Your task to perform on an android device: open app "Adobe Express: Graphic Design" (install if not already installed) and go to login screen Image 0: 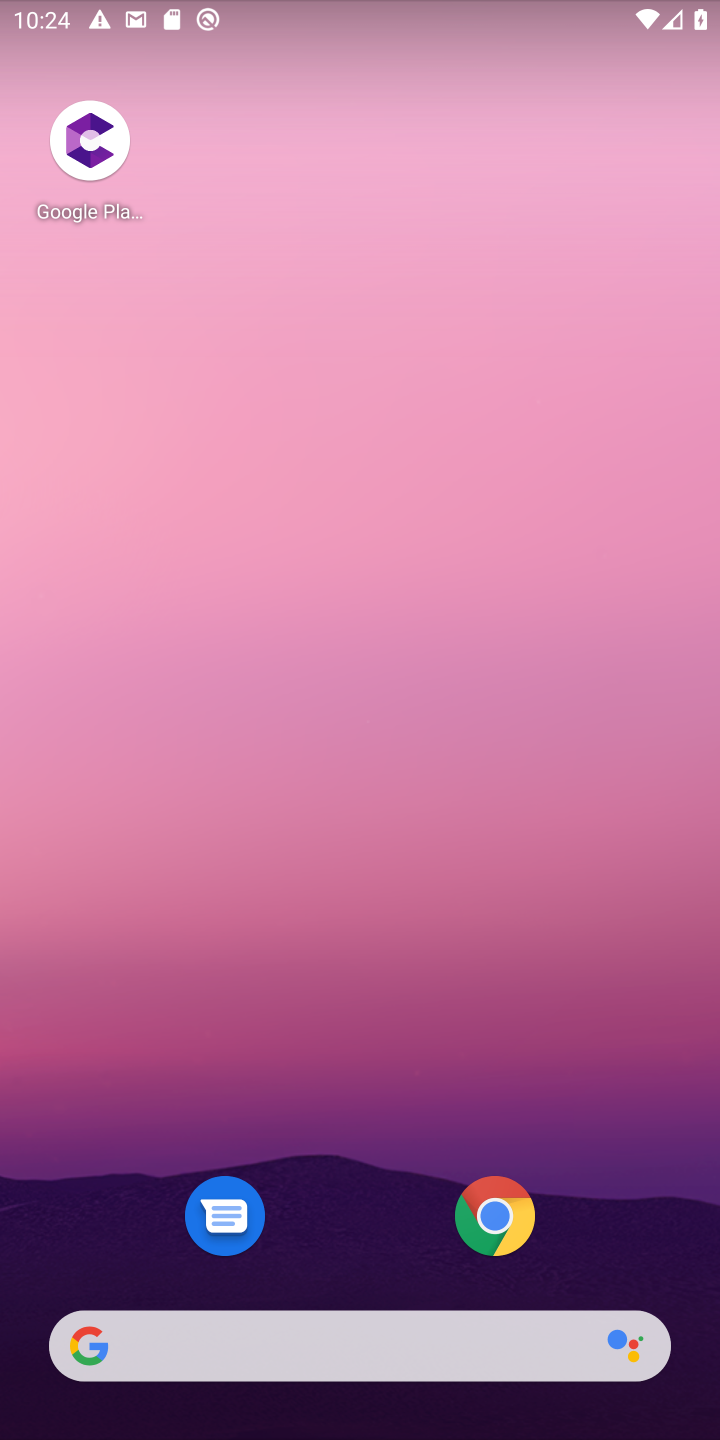
Step 0: drag from (277, 1333) to (387, 37)
Your task to perform on an android device: open app "Adobe Express: Graphic Design" (install if not already installed) and go to login screen Image 1: 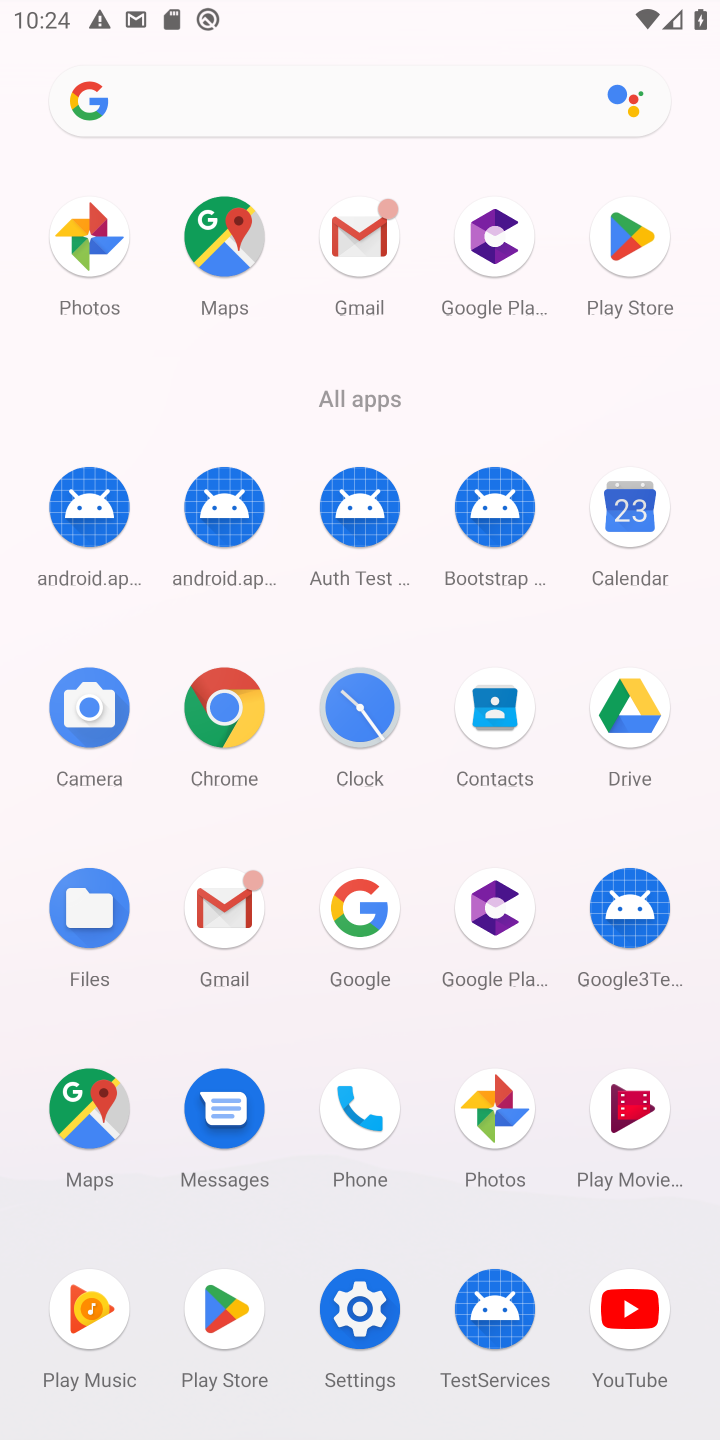
Step 1: click (633, 236)
Your task to perform on an android device: open app "Adobe Express: Graphic Design" (install if not already installed) and go to login screen Image 2: 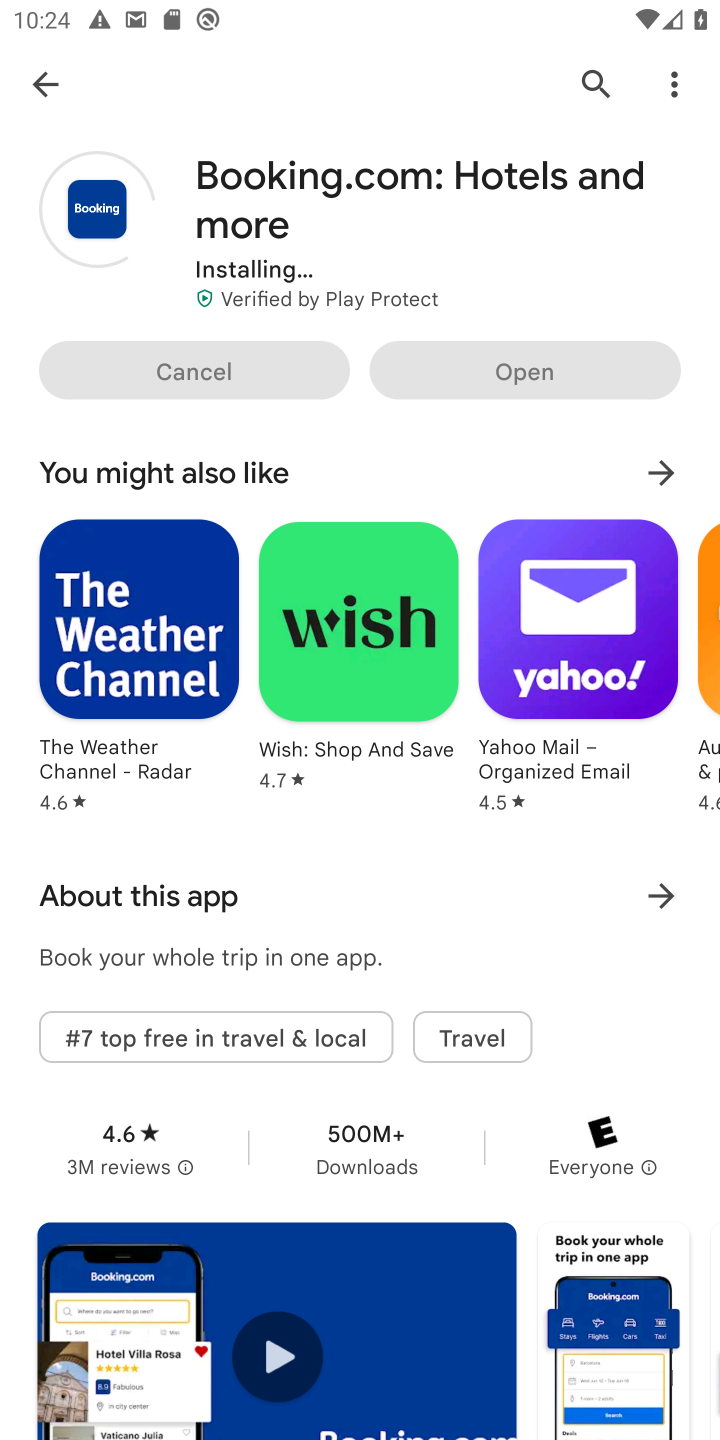
Step 2: press back button
Your task to perform on an android device: open app "Adobe Express: Graphic Design" (install if not already installed) and go to login screen Image 3: 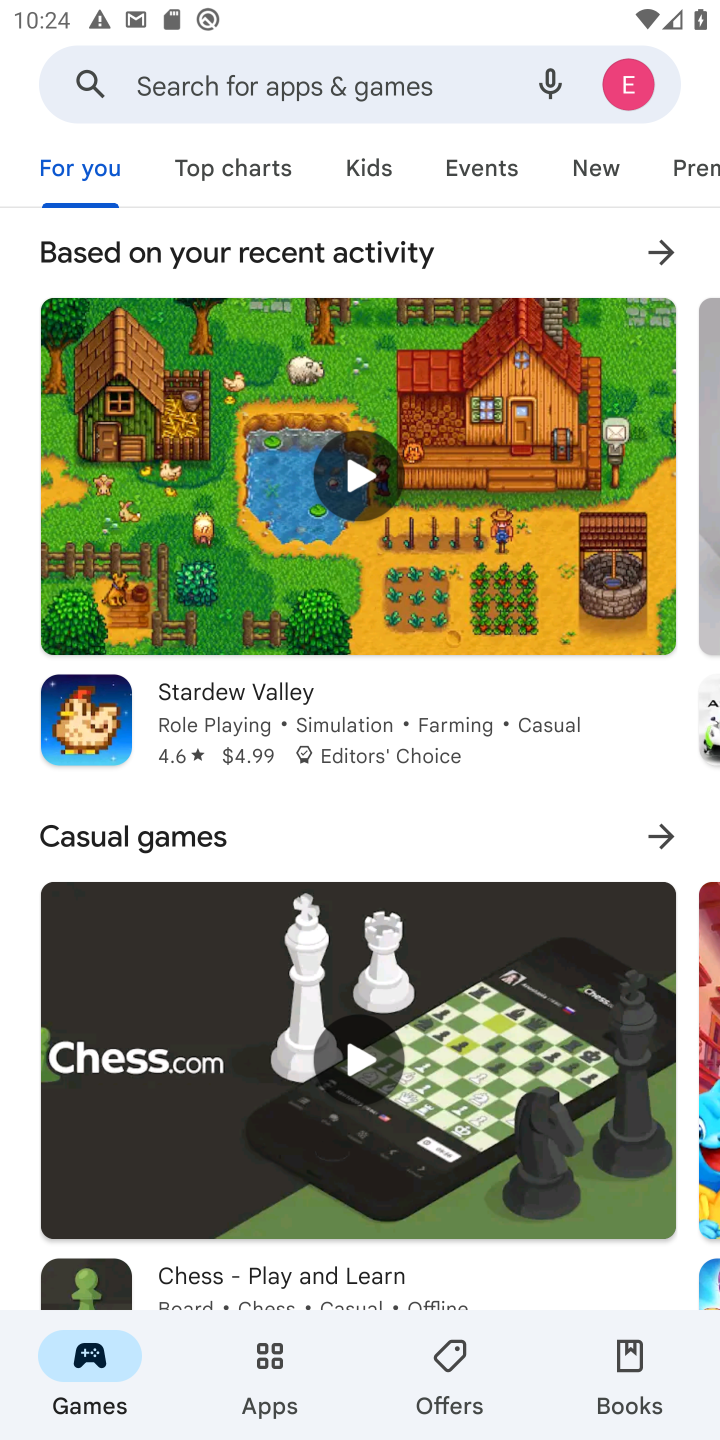
Step 3: click (393, 89)
Your task to perform on an android device: open app "Adobe Express: Graphic Design" (install if not already installed) and go to login screen Image 4: 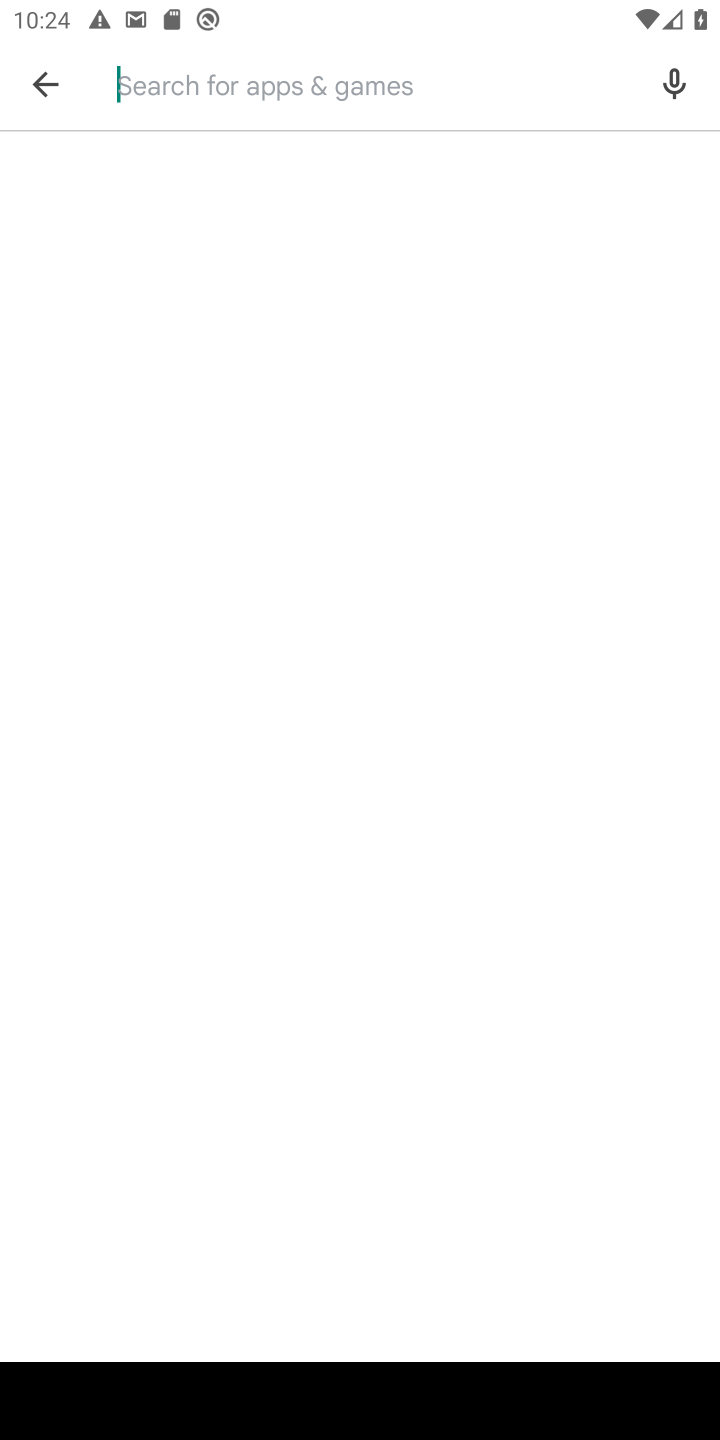
Step 4: type "Adobe Express: Graphic Design"
Your task to perform on an android device: open app "Adobe Express: Graphic Design" (install if not already installed) and go to login screen Image 5: 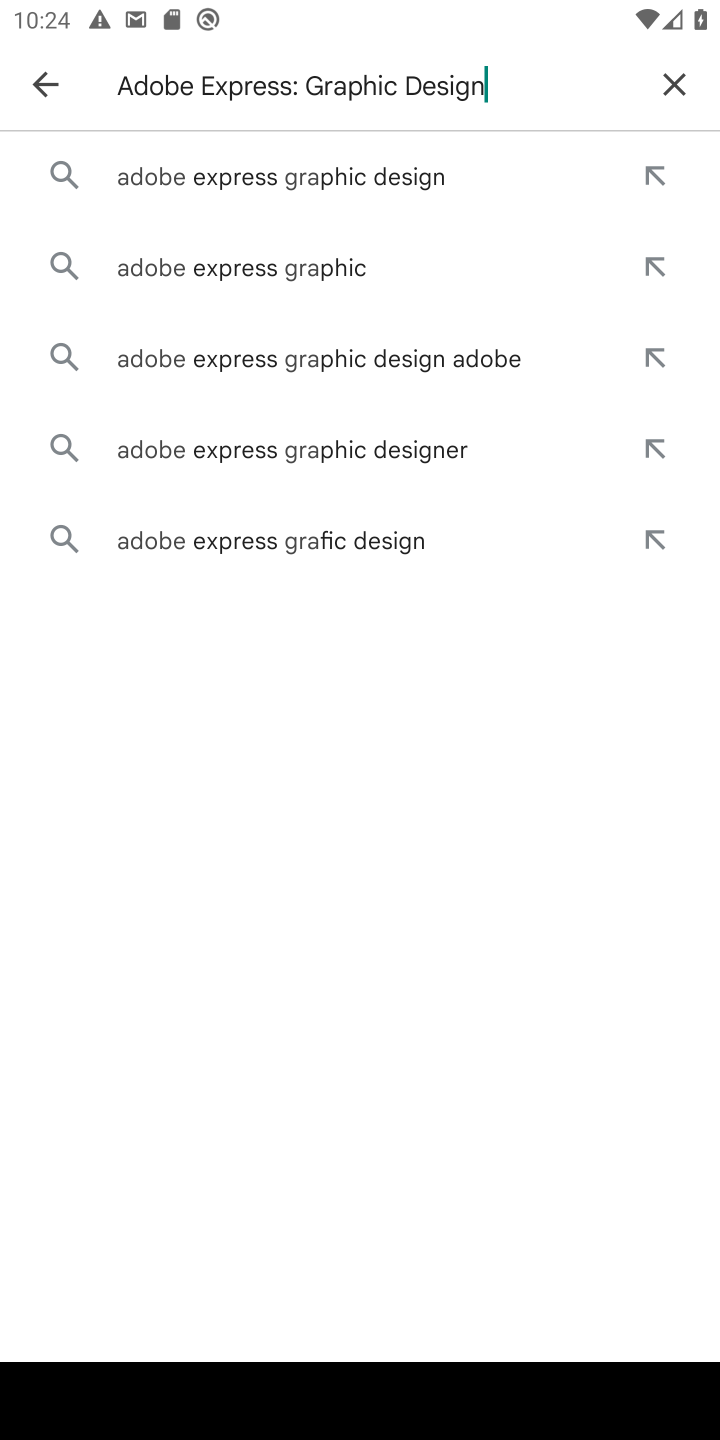
Step 5: type ""
Your task to perform on an android device: open app "Adobe Express: Graphic Design" (install if not already installed) and go to login screen Image 6: 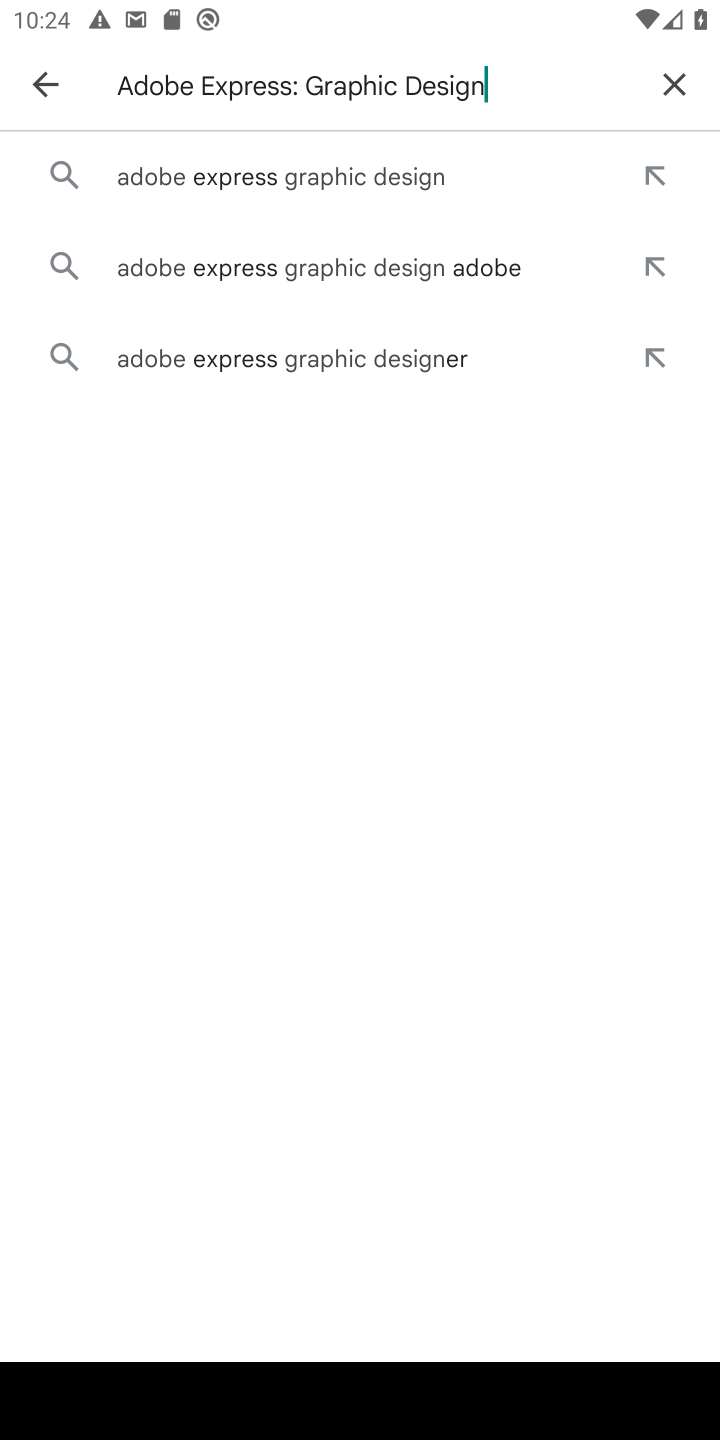
Step 6: click (219, 161)
Your task to perform on an android device: open app "Adobe Express: Graphic Design" (install if not already installed) and go to login screen Image 7: 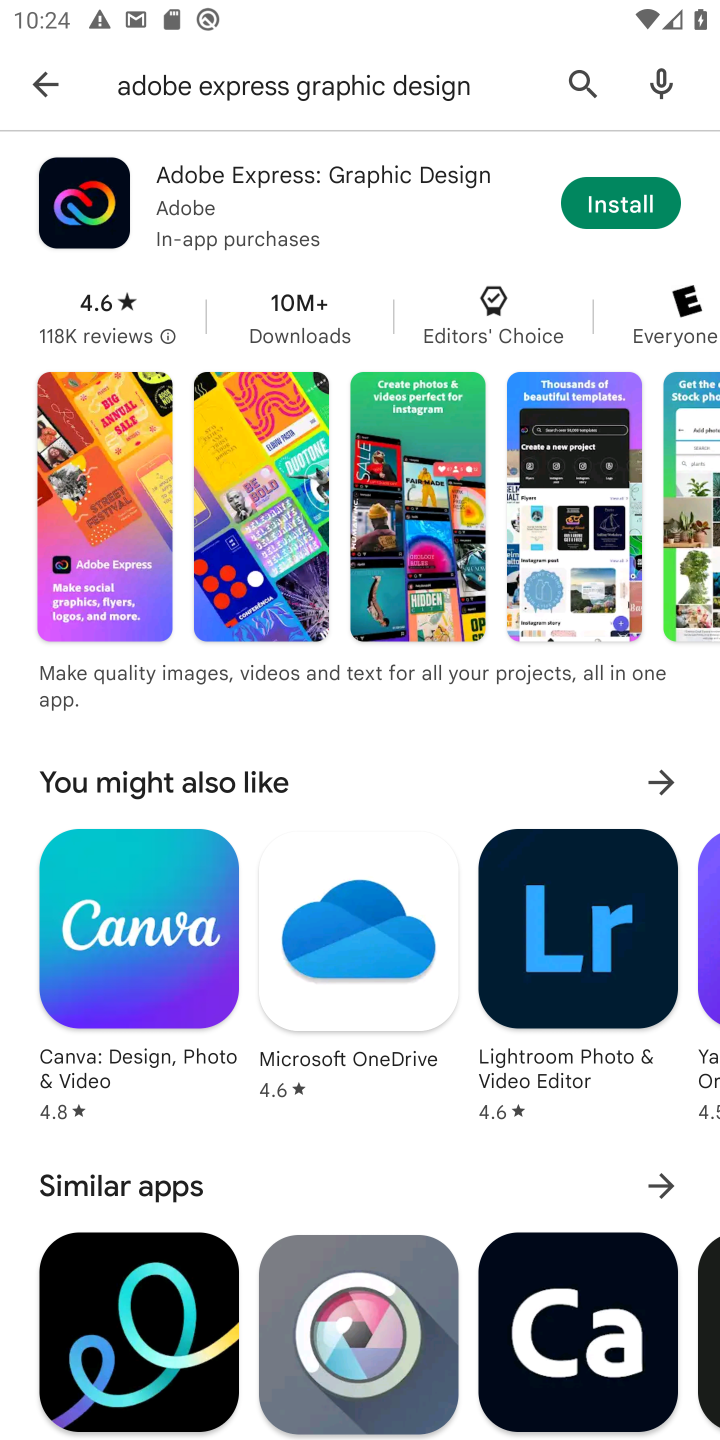
Step 7: click (599, 210)
Your task to perform on an android device: open app "Adobe Express: Graphic Design" (install if not already installed) and go to login screen Image 8: 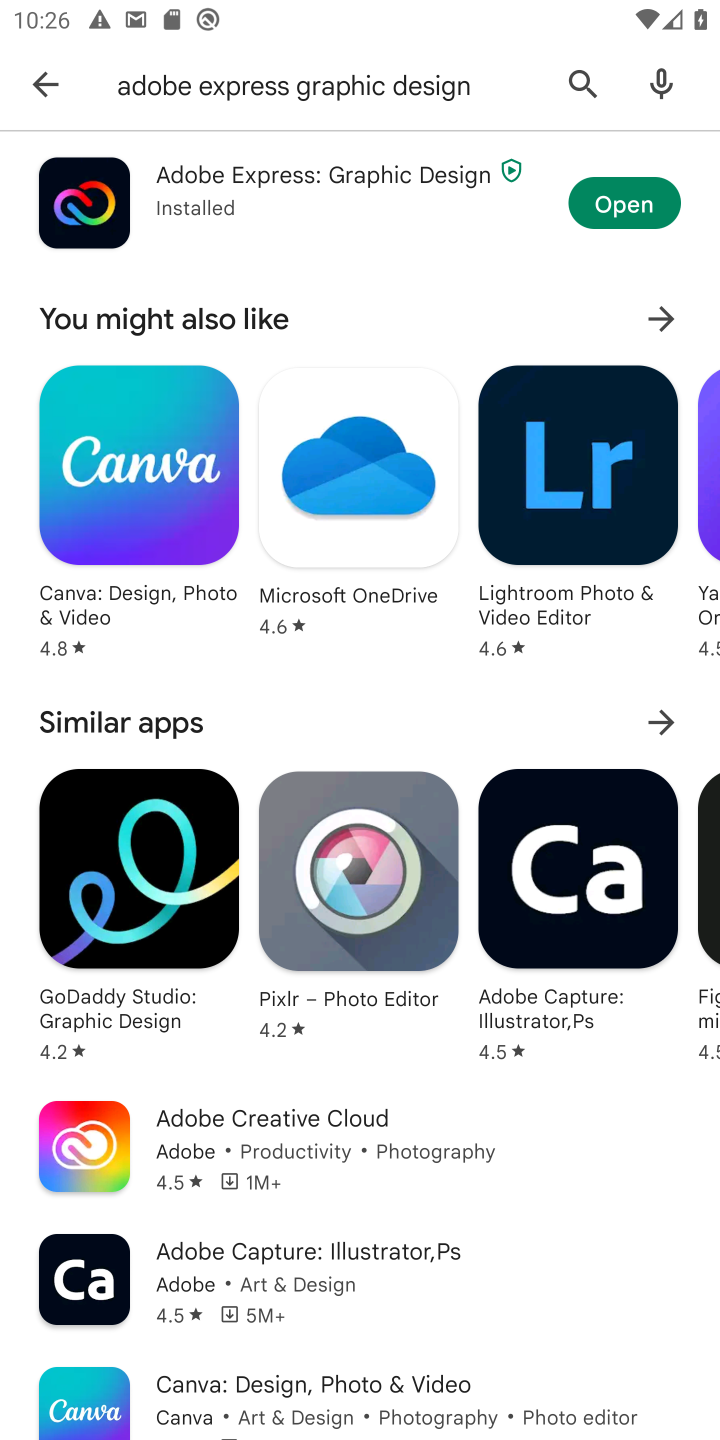
Step 8: click (603, 199)
Your task to perform on an android device: open app "Adobe Express: Graphic Design" (install if not already installed) and go to login screen Image 9: 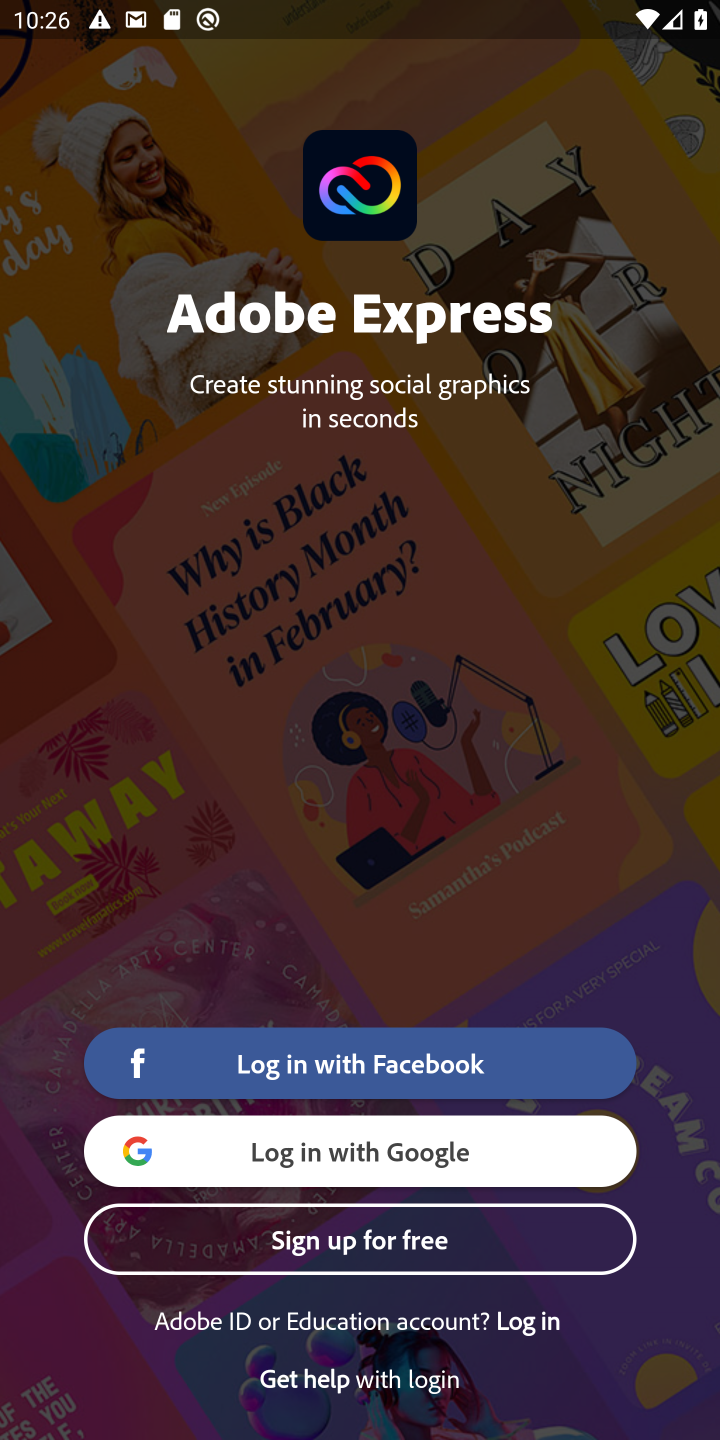
Step 9: click (331, 1169)
Your task to perform on an android device: open app "Adobe Express: Graphic Design" (install if not already installed) and go to login screen Image 10: 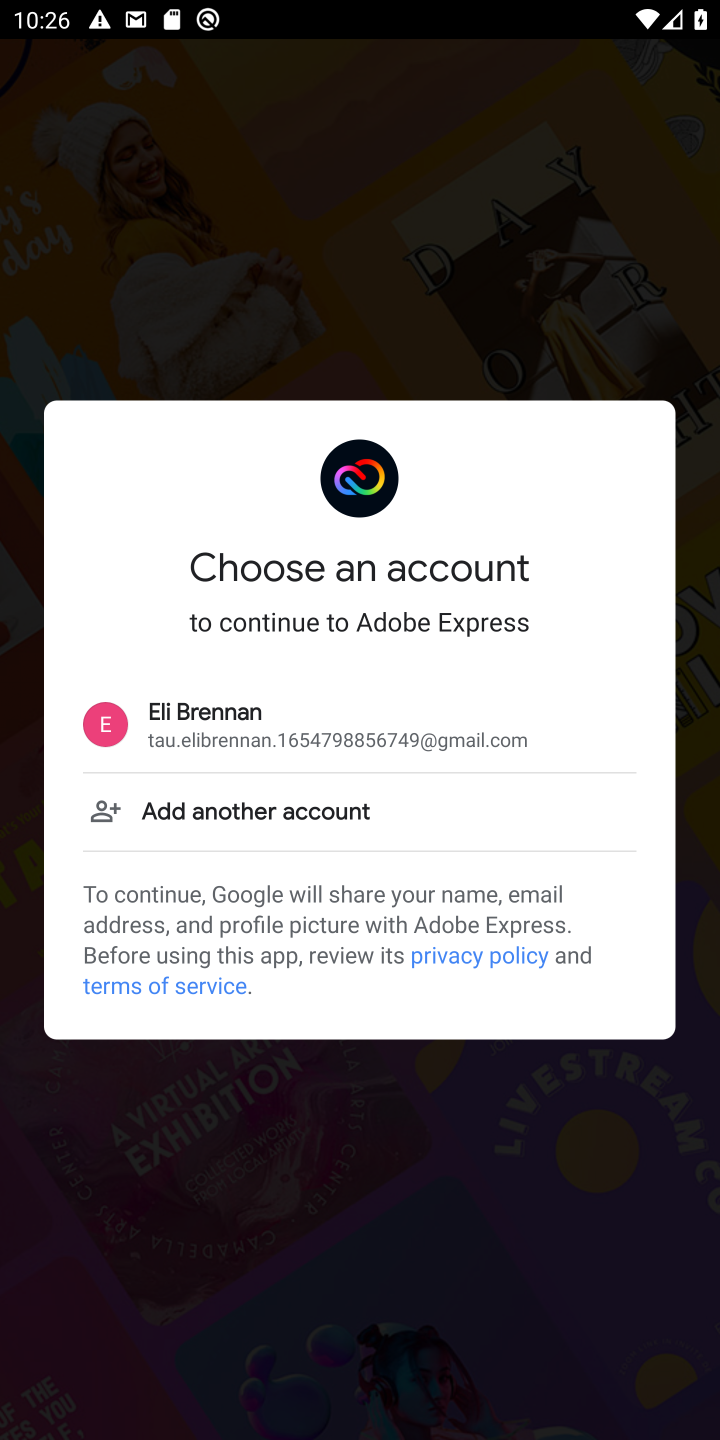
Step 10: click (335, 812)
Your task to perform on an android device: open app "Adobe Express: Graphic Design" (install if not already installed) and go to login screen Image 11: 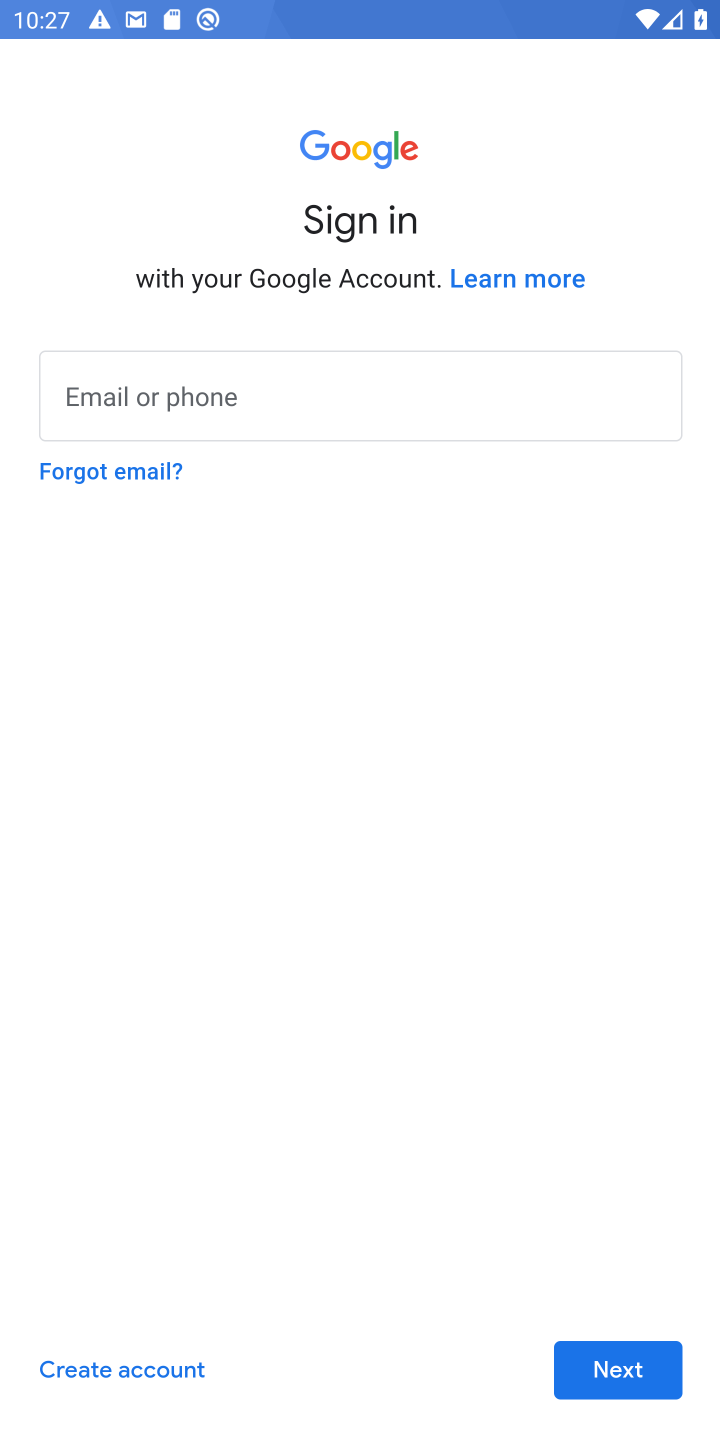
Step 11: task complete